Your task to perform on an android device: Open location settings Image 0: 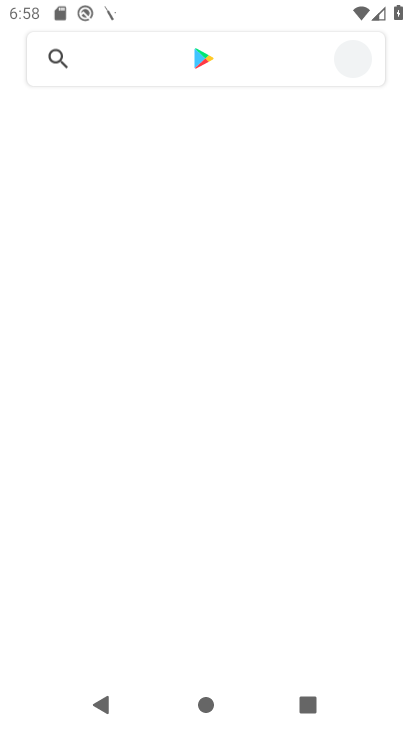
Step 0: drag from (255, 548) to (244, 387)
Your task to perform on an android device: Open location settings Image 1: 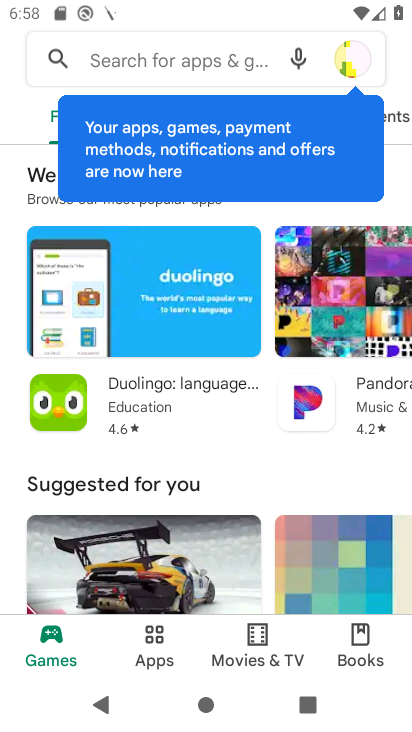
Step 1: press home button
Your task to perform on an android device: Open location settings Image 2: 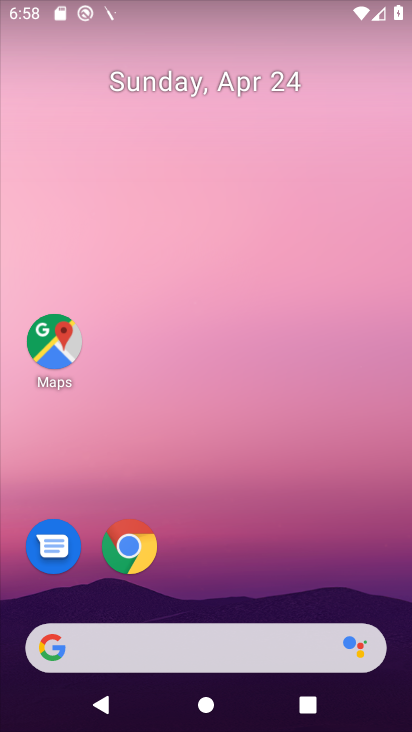
Step 2: drag from (288, 533) to (242, 16)
Your task to perform on an android device: Open location settings Image 3: 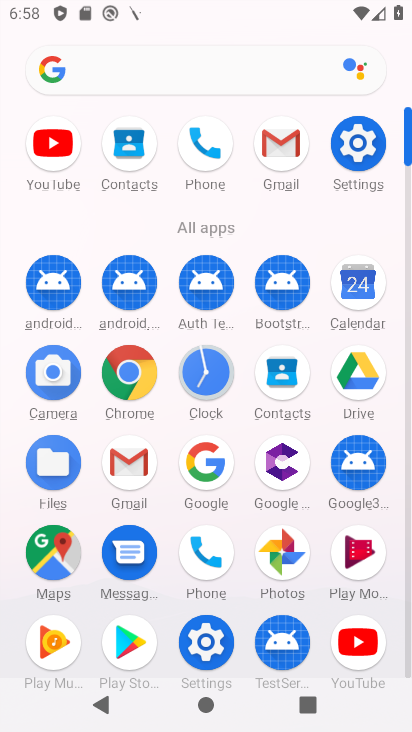
Step 3: click (357, 139)
Your task to perform on an android device: Open location settings Image 4: 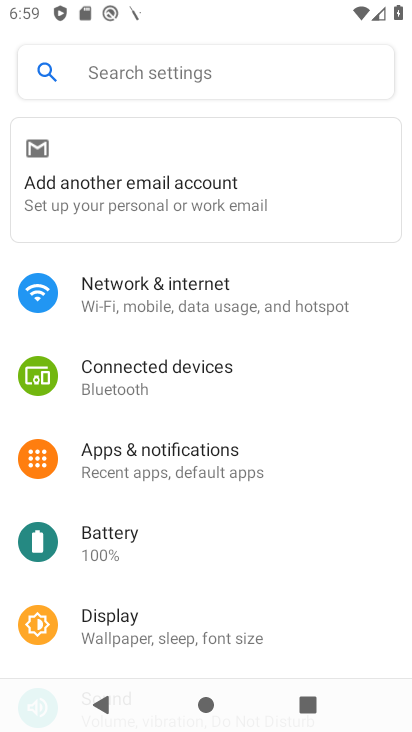
Step 4: drag from (274, 567) to (202, 202)
Your task to perform on an android device: Open location settings Image 5: 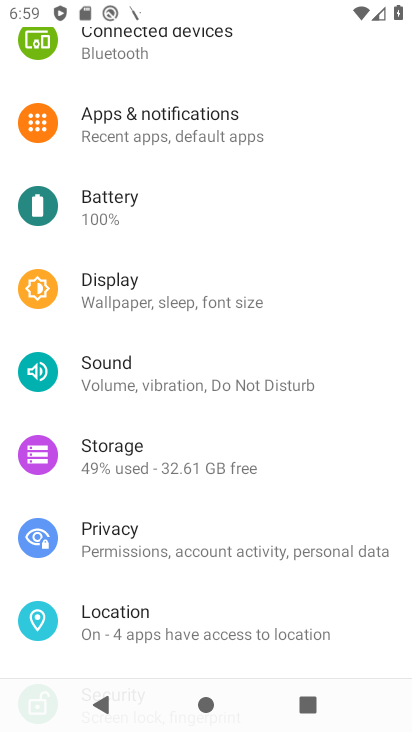
Step 5: click (110, 610)
Your task to perform on an android device: Open location settings Image 6: 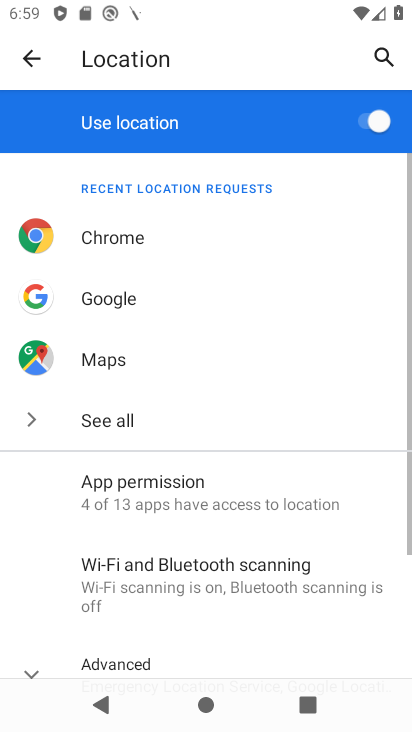
Step 6: task complete